Your task to perform on an android device: Go to accessibility settings Image 0: 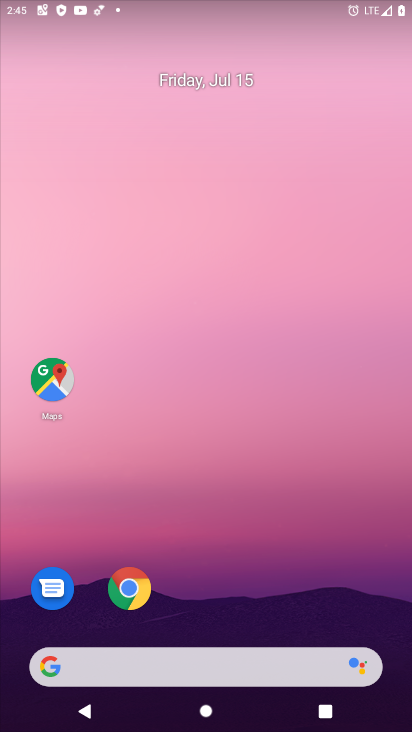
Step 0: press home button
Your task to perform on an android device: Go to accessibility settings Image 1: 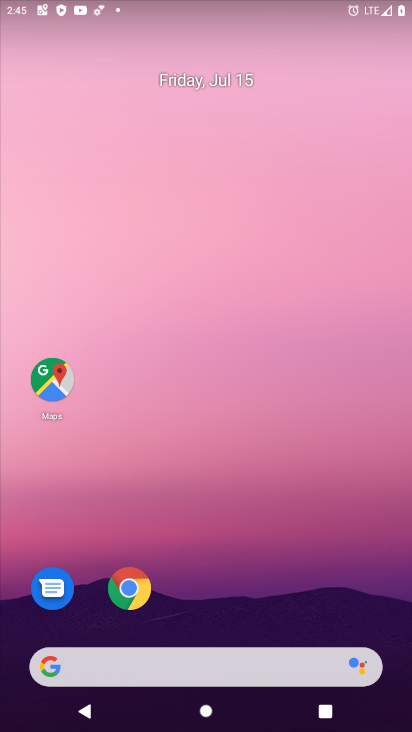
Step 1: drag from (186, 676) to (218, 321)
Your task to perform on an android device: Go to accessibility settings Image 2: 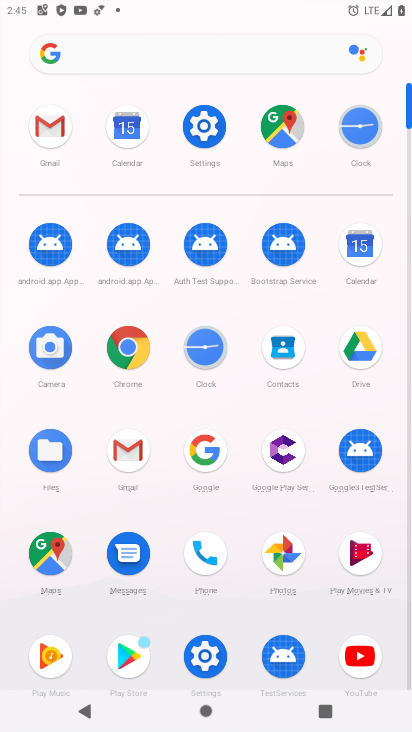
Step 2: click (205, 125)
Your task to perform on an android device: Go to accessibility settings Image 3: 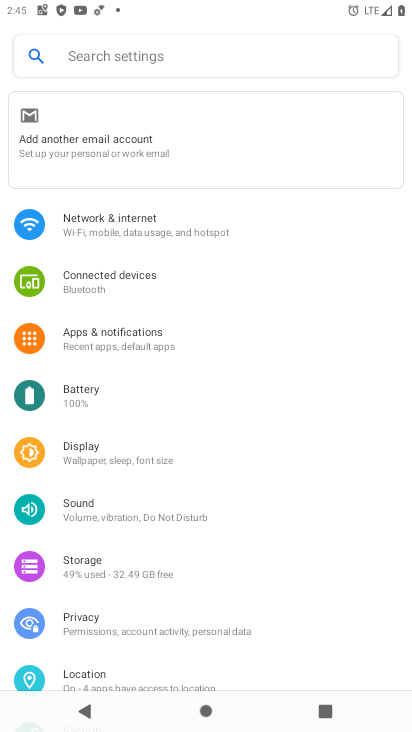
Step 3: drag from (125, 597) to (184, 443)
Your task to perform on an android device: Go to accessibility settings Image 4: 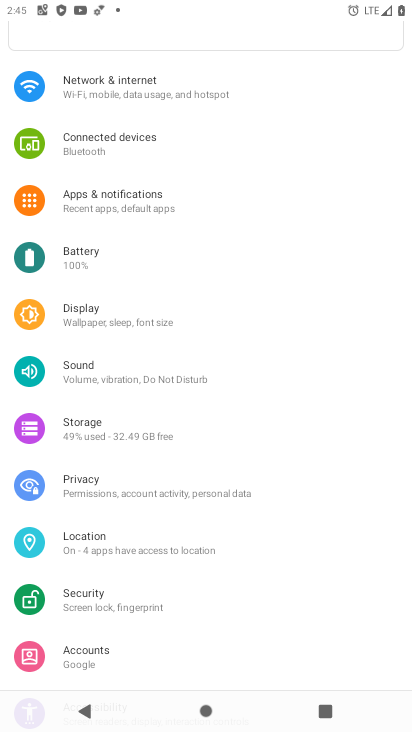
Step 4: drag from (139, 562) to (193, 357)
Your task to perform on an android device: Go to accessibility settings Image 5: 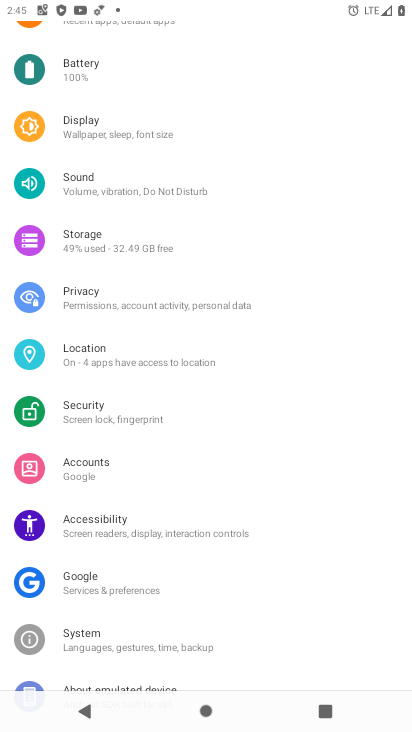
Step 5: click (123, 522)
Your task to perform on an android device: Go to accessibility settings Image 6: 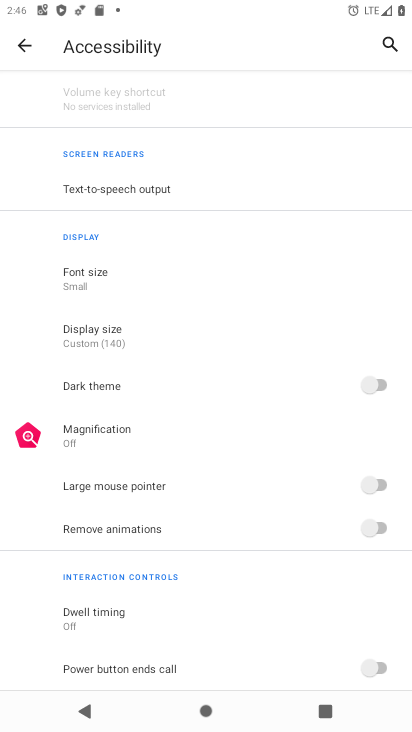
Step 6: task complete